Your task to perform on an android device: open a new tab in the chrome app Image 0: 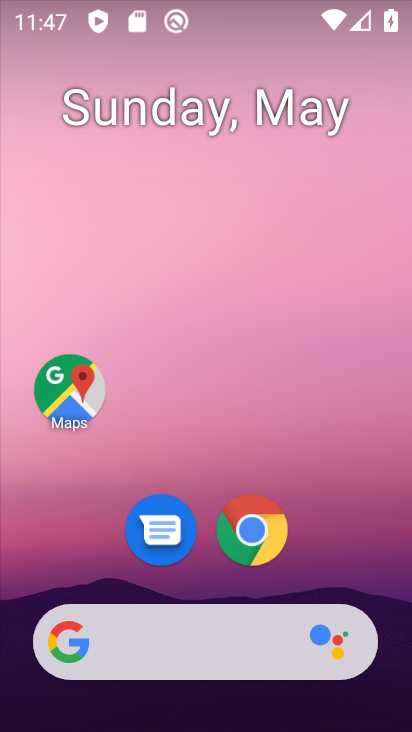
Step 0: click (253, 539)
Your task to perform on an android device: open a new tab in the chrome app Image 1: 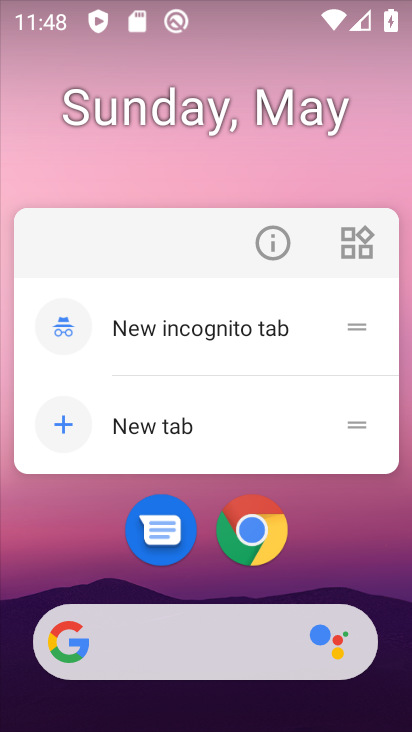
Step 1: click (263, 541)
Your task to perform on an android device: open a new tab in the chrome app Image 2: 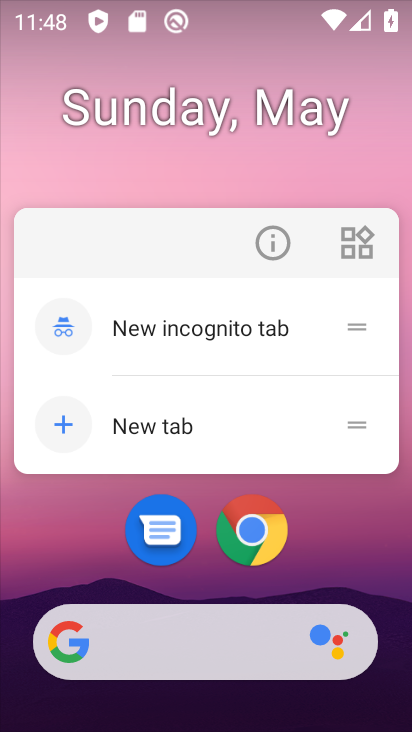
Step 2: click (231, 518)
Your task to perform on an android device: open a new tab in the chrome app Image 3: 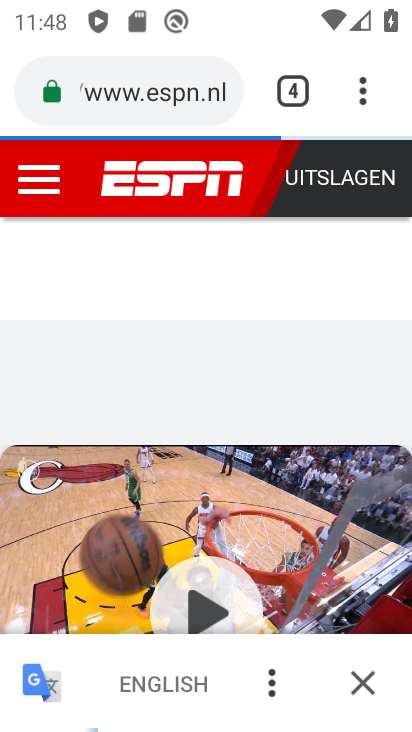
Step 3: task complete